Your task to perform on an android device: Turn off the flashlight Image 0: 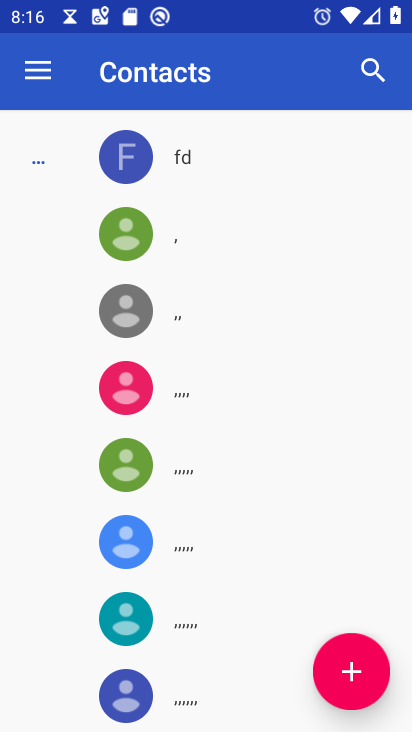
Step 0: press home button
Your task to perform on an android device: Turn off the flashlight Image 1: 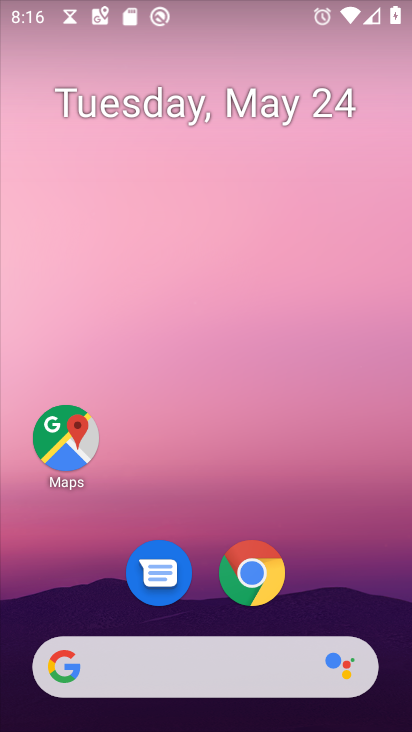
Step 1: drag from (367, 568) to (281, 6)
Your task to perform on an android device: Turn off the flashlight Image 2: 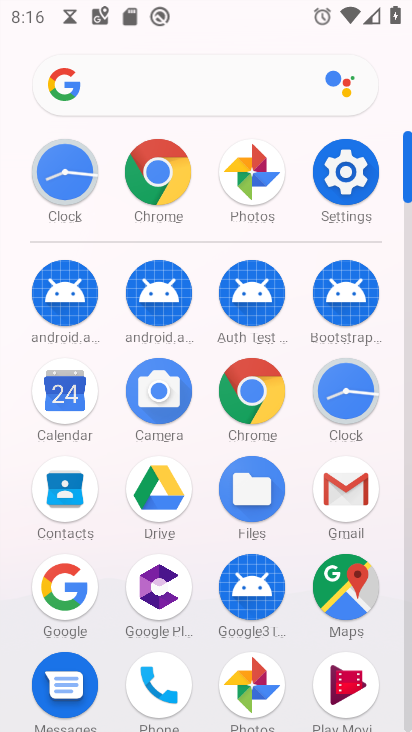
Step 2: click (338, 206)
Your task to perform on an android device: Turn off the flashlight Image 3: 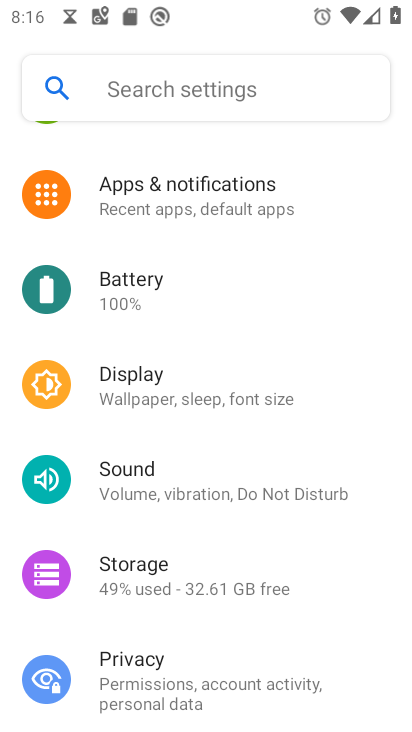
Step 3: task complete